Your task to perform on an android device: Open settings Image 0: 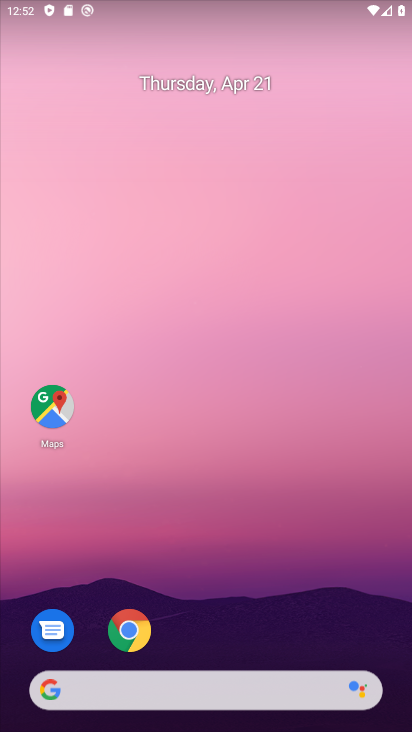
Step 0: drag from (305, 7) to (246, 559)
Your task to perform on an android device: Open settings Image 1: 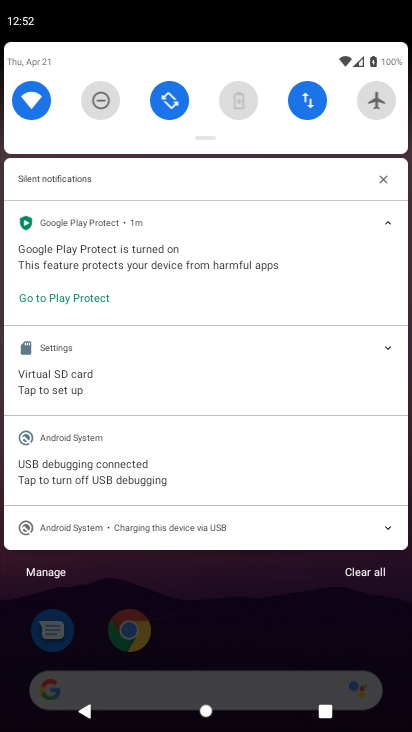
Step 1: drag from (215, 139) to (208, 620)
Your task to perform on an android device: Open settings Image 2: 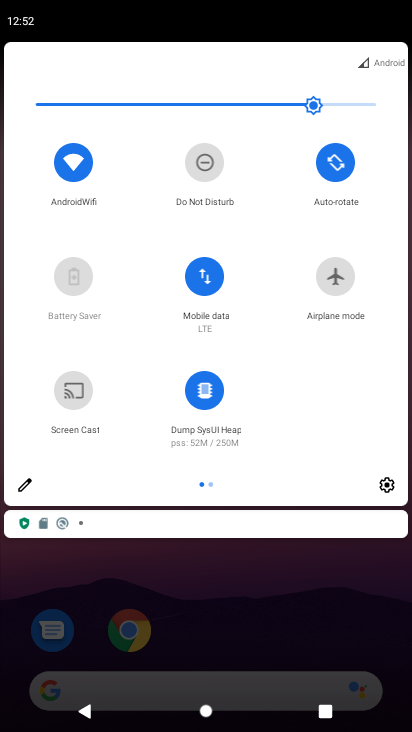
Step 2: click (386, 488)
Your task to perform on an android device: Open settings Image 3: 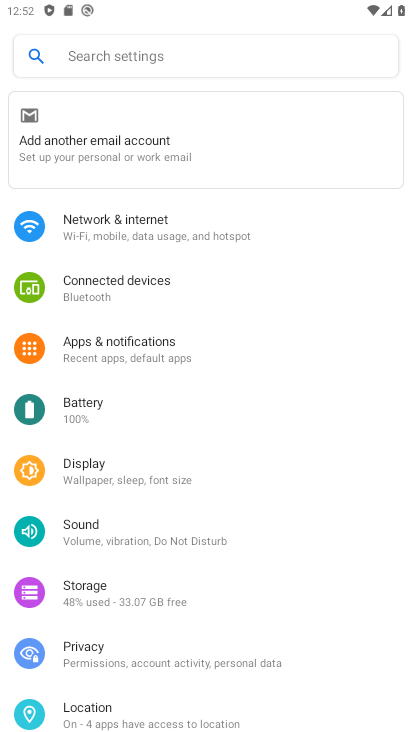
Step 3: task complete